Your task to perform on an android device: What is the news today? Image 0: 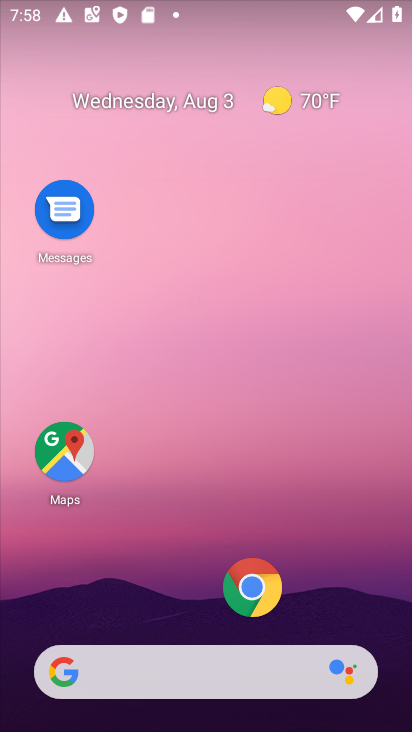
Step 0: click (174, 670)
Your task to perform on an android device: What is the news today? Image 1: 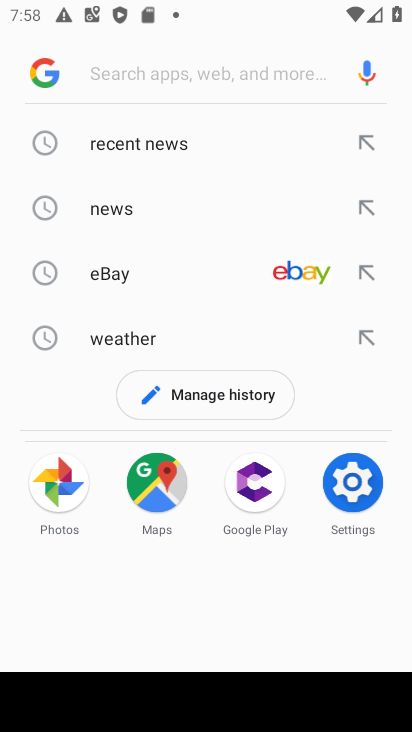
Step 1: type "what is the news today"
Your task to perform on an android device: What is the news today? Image 2: 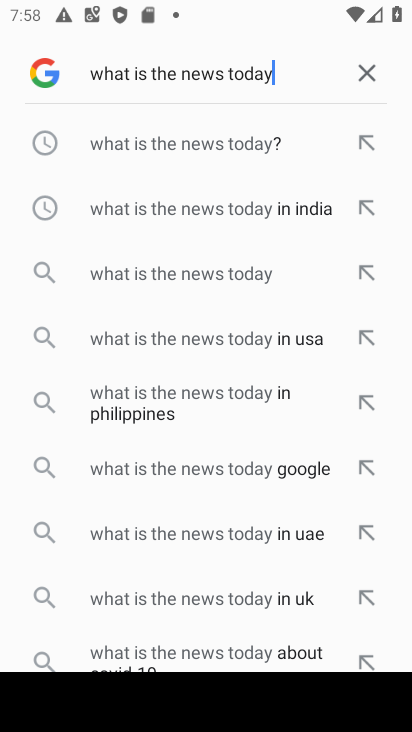
Step 2: click (236, 133)
Your task to perform on an android device: What is the news today? Image 3: 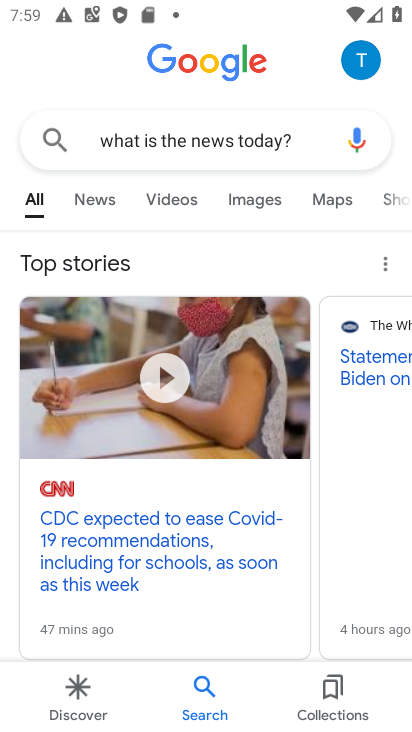
Step 3: click (84, 206)
Your task to perform on an android device: What is the news today? Image 4: 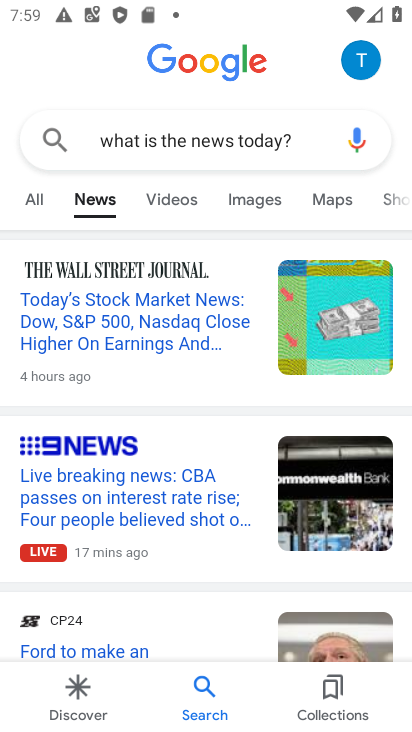
Step 4: task complete